Your task to perform on an android device: Open my contact list Image 0: 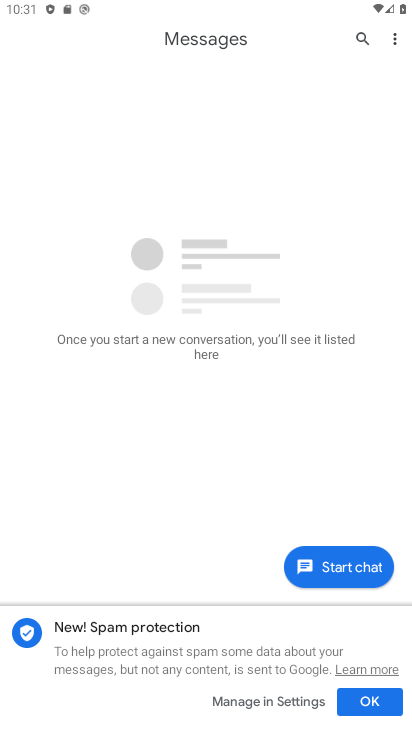
Step 0: press home button
Your task to perform on an android device: Open my contact list Image 1: 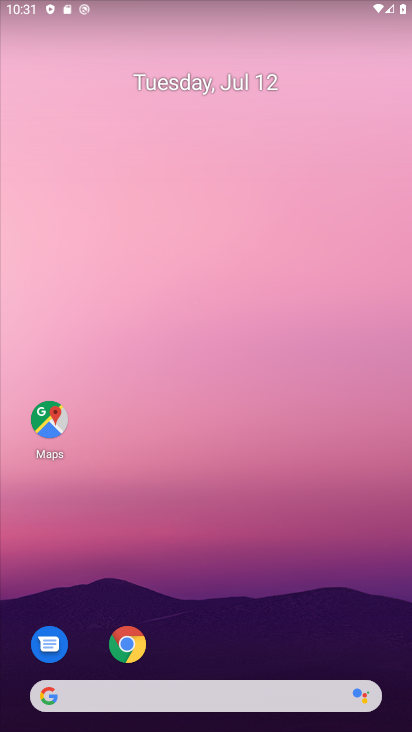
Step 1: drag from (236, 630) to (252, 40)
Your task to perform on an android device: Open my contact list Image 2: 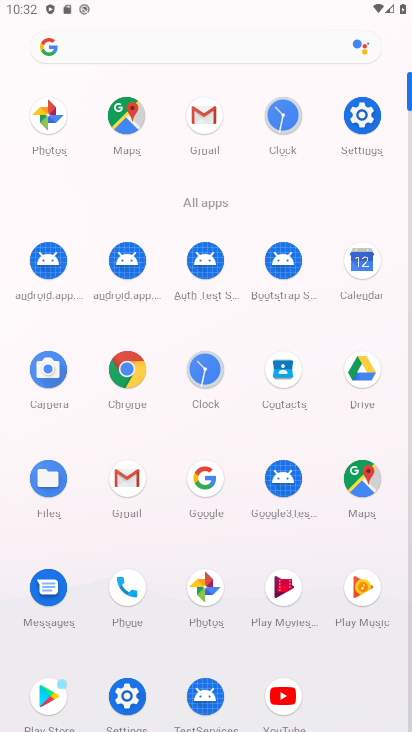
Step 2: click (271, 364)
Your task to perform on an android device: Open my contact list Image 3: 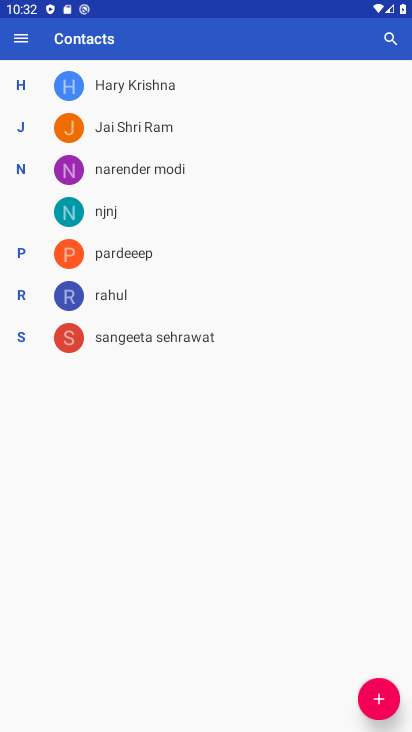
Step 3: task complete